Your task to perform on an android device: Go to Google Image 0: 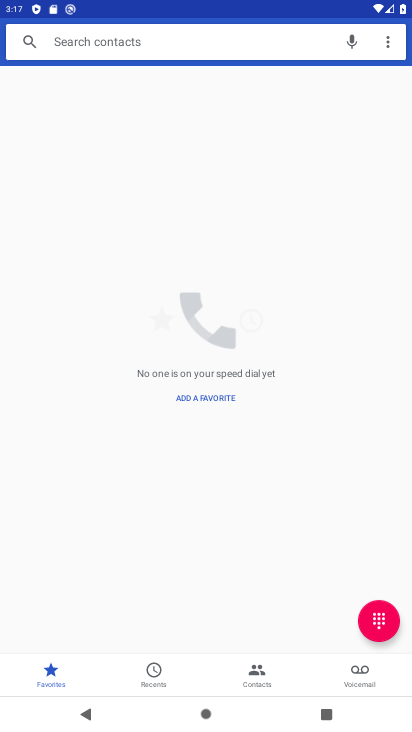
Step 0: press home button
Your task to perform on an android device: Go to Google Image 1: 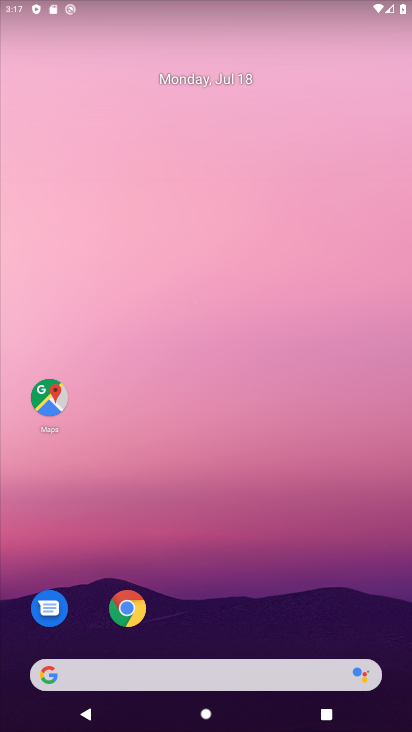
Step 1: drag from (304, 624) to (260, 118)
Your task to perform on an android device: Go to Google Image 2: 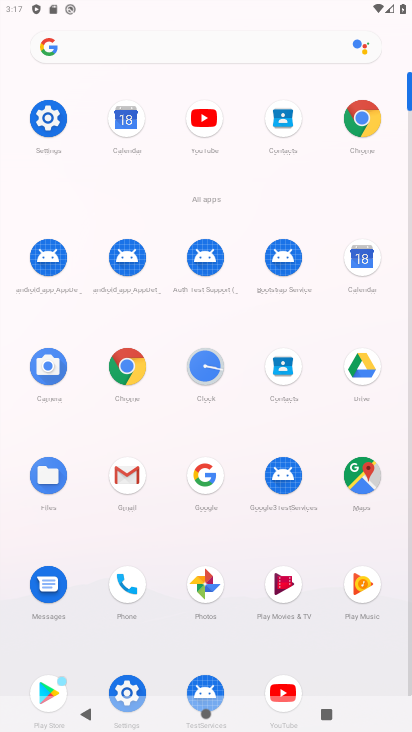
Step 2: click (206, 469)
Your task to perform on an android device: Go to Google Image 3: 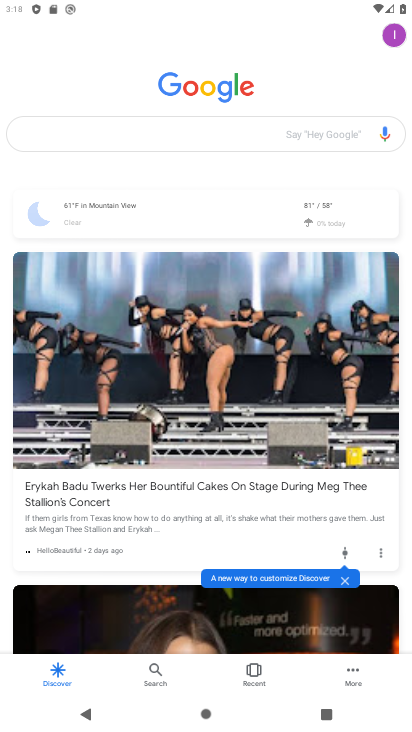
Step 3: task complete